Your task to perform on an android device: open app "PlayWell" (install if not already installed) Image 0: 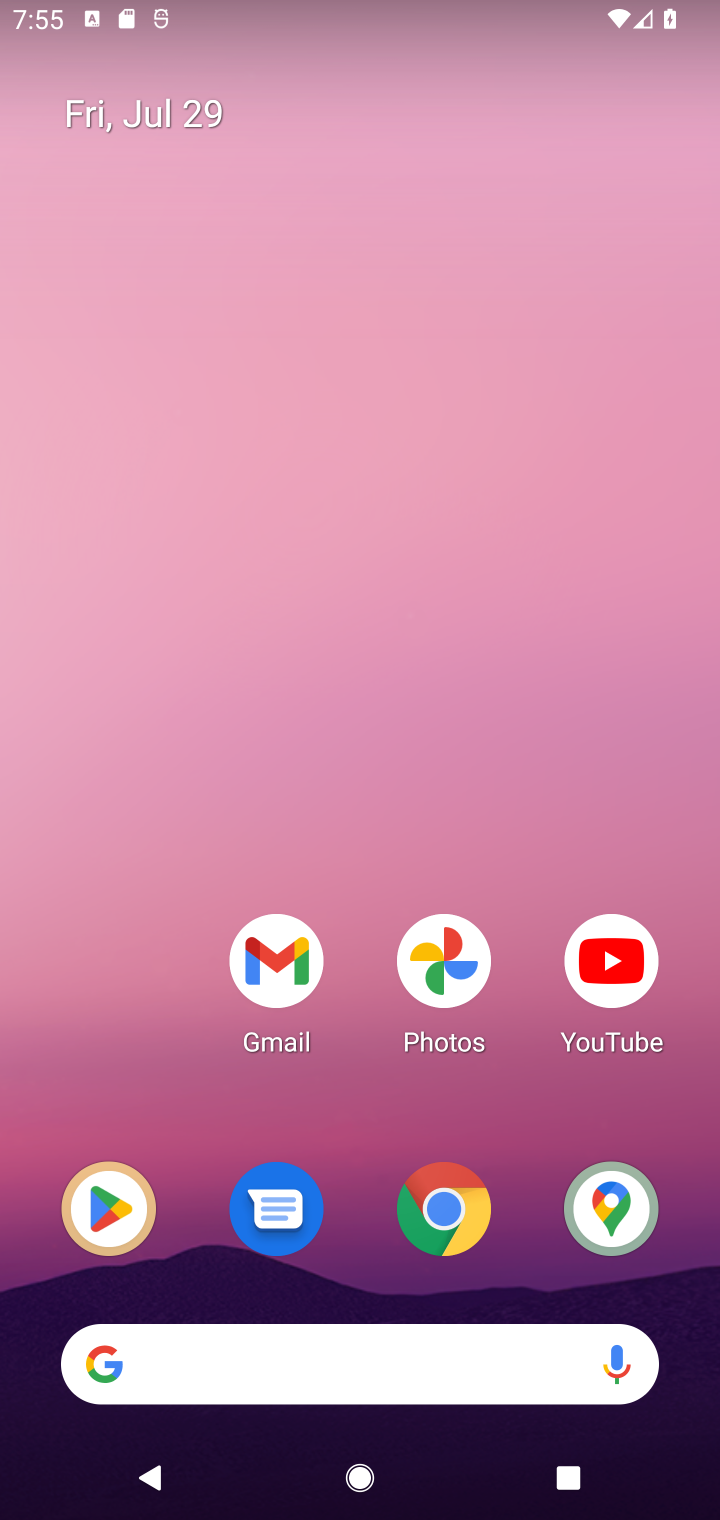
Step 0: click (125, 1210)
Your task to perform on an android device: open app "PlayWell" (install if not already installed) Image 1: 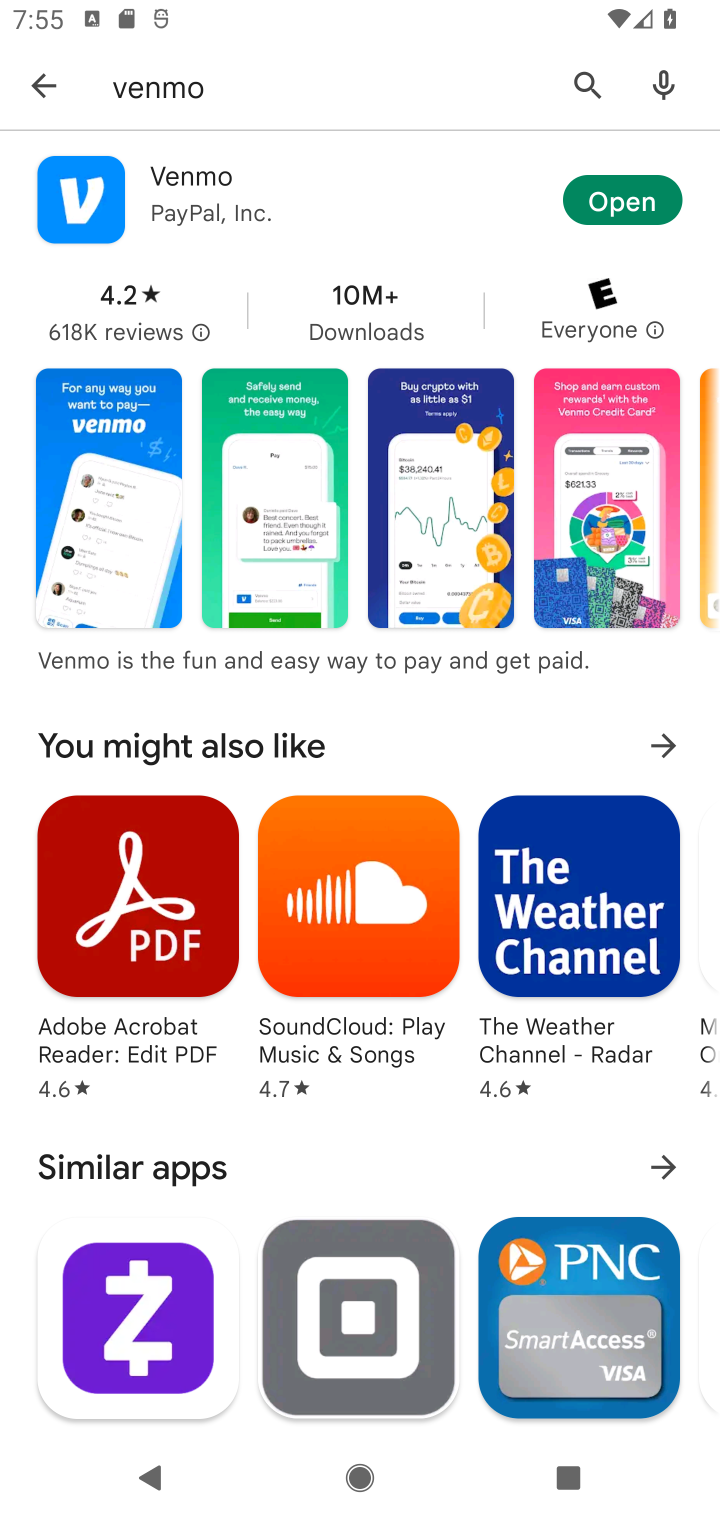
Step 1: click (593, 80)
Your task to perform on an android device: open app "PlayWell" (install if not already installed) Image 2: 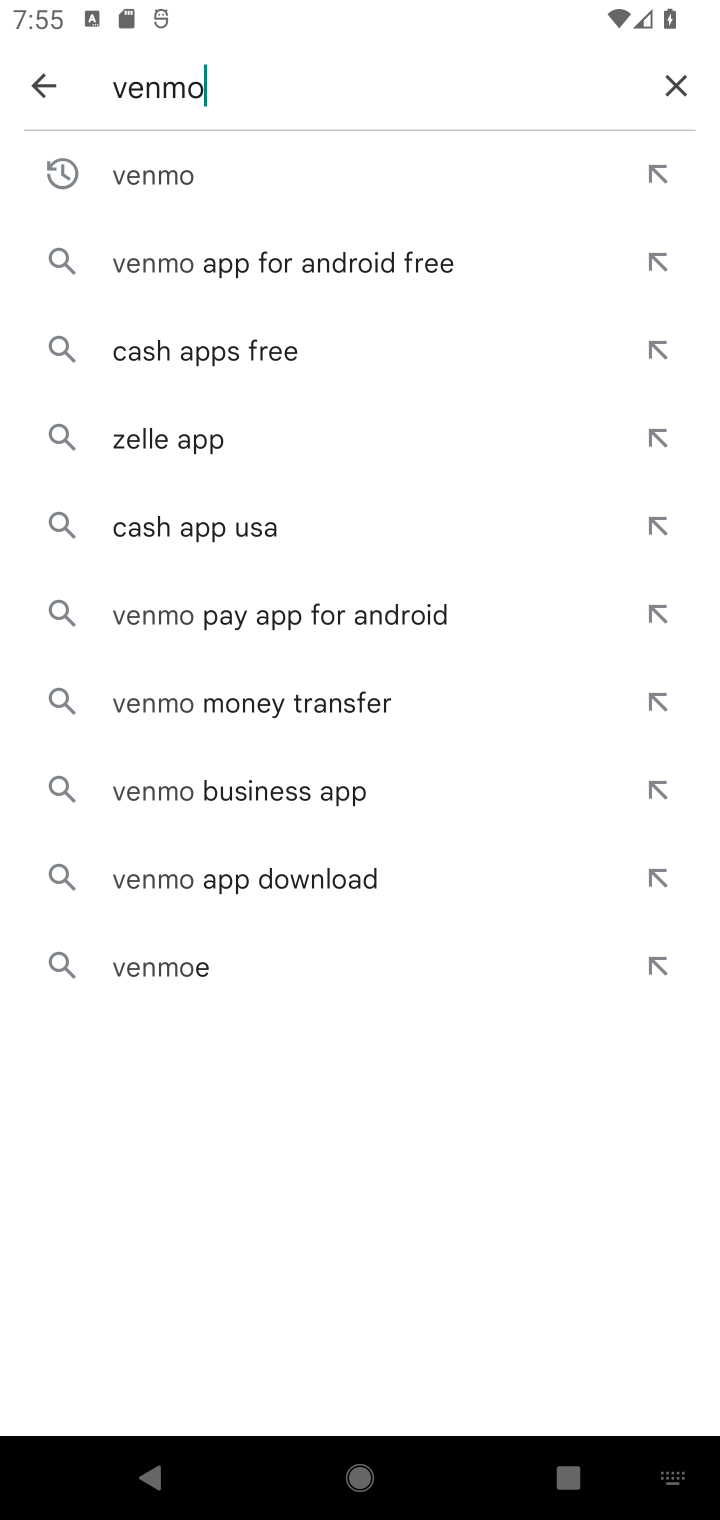
Step 2: click (659, 92)
Your task to perform on an android device: open app "PlayWell" (install if not already installed) Image 3: 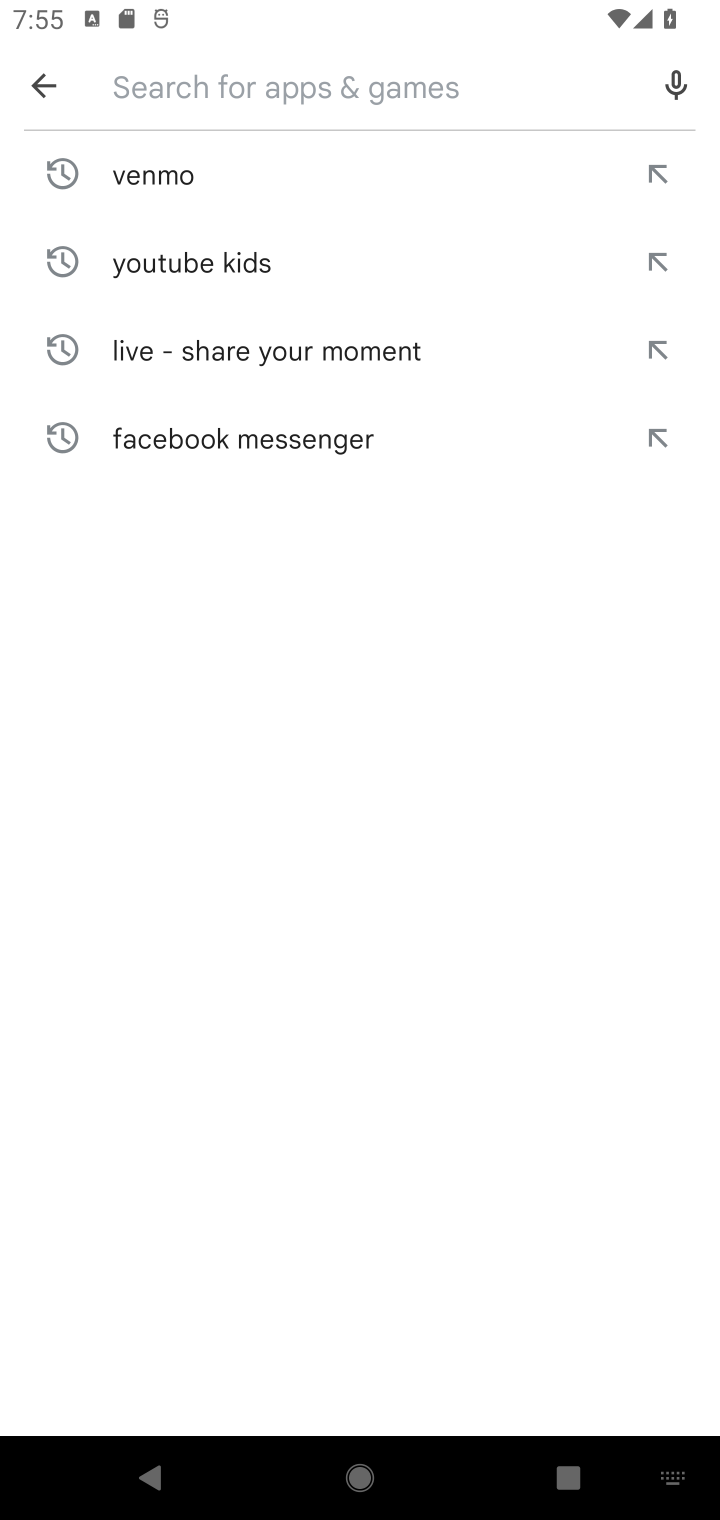
Step 3: type "PlayWell"
Your task to perform on an android device: open app "PlayWell" (install if not already installed) Image 4: 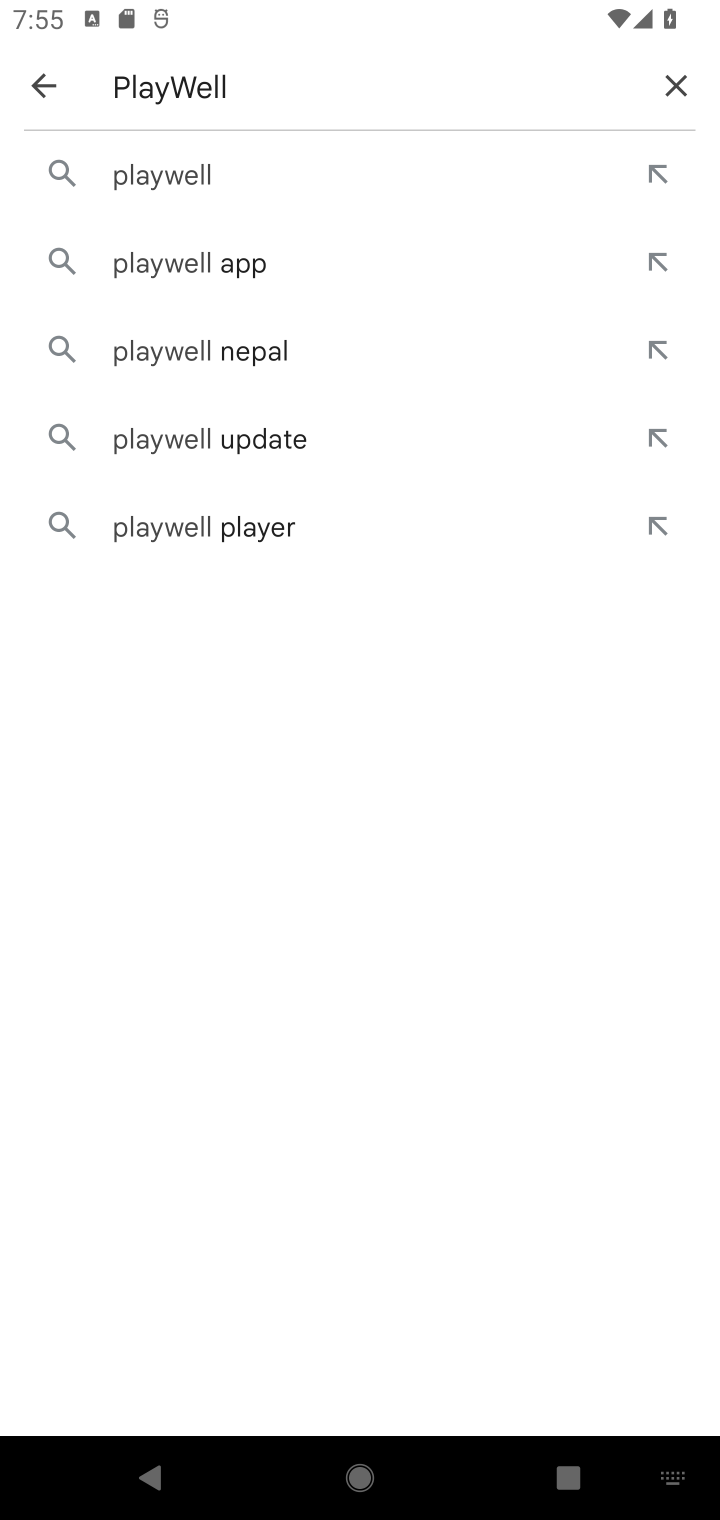
Step 4: click (160, 186)
Your task to perform on an android device: open app "PlayWell" (install if not already installed) Image 5: 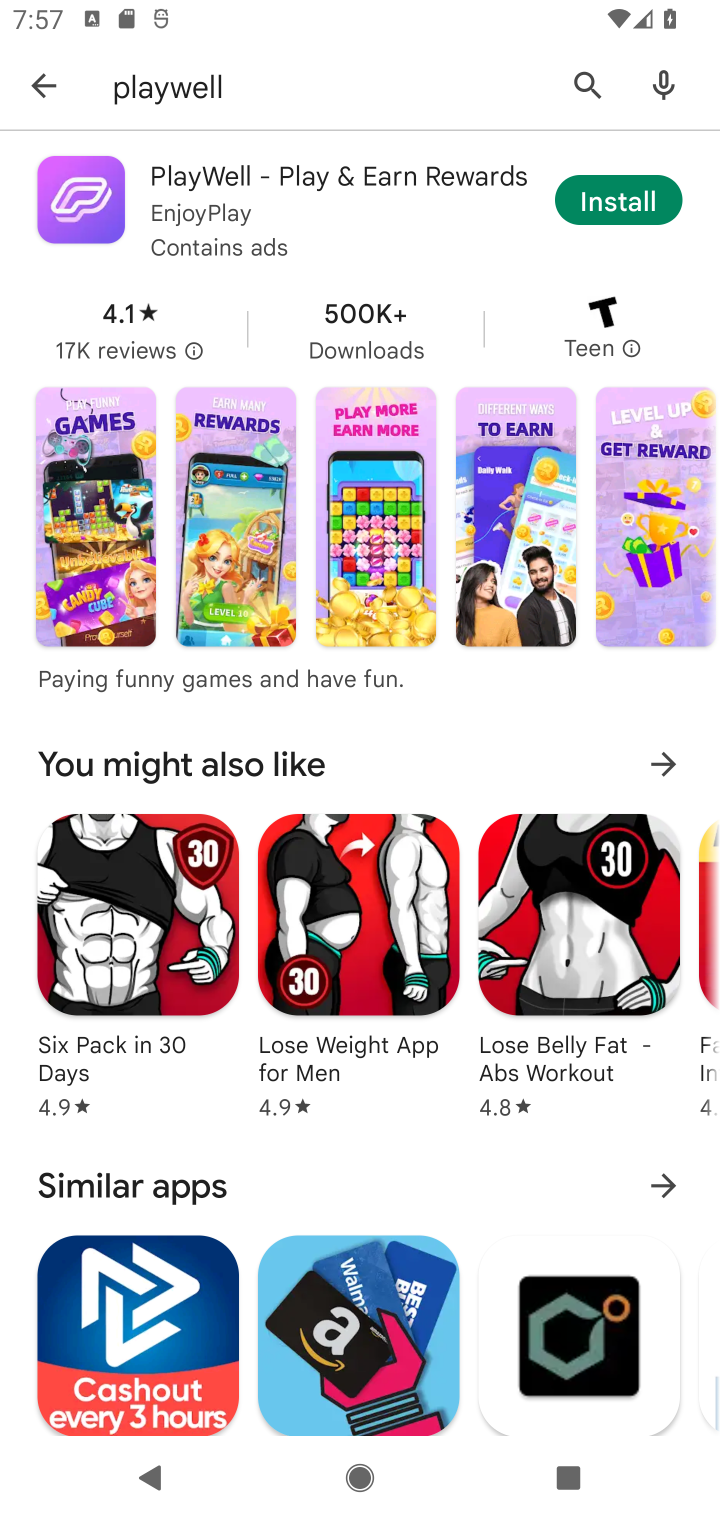
Step 5: click (619, 196)
Your task to perform on an android device: open app "PlayWell" (install if not already installed) Image 6: 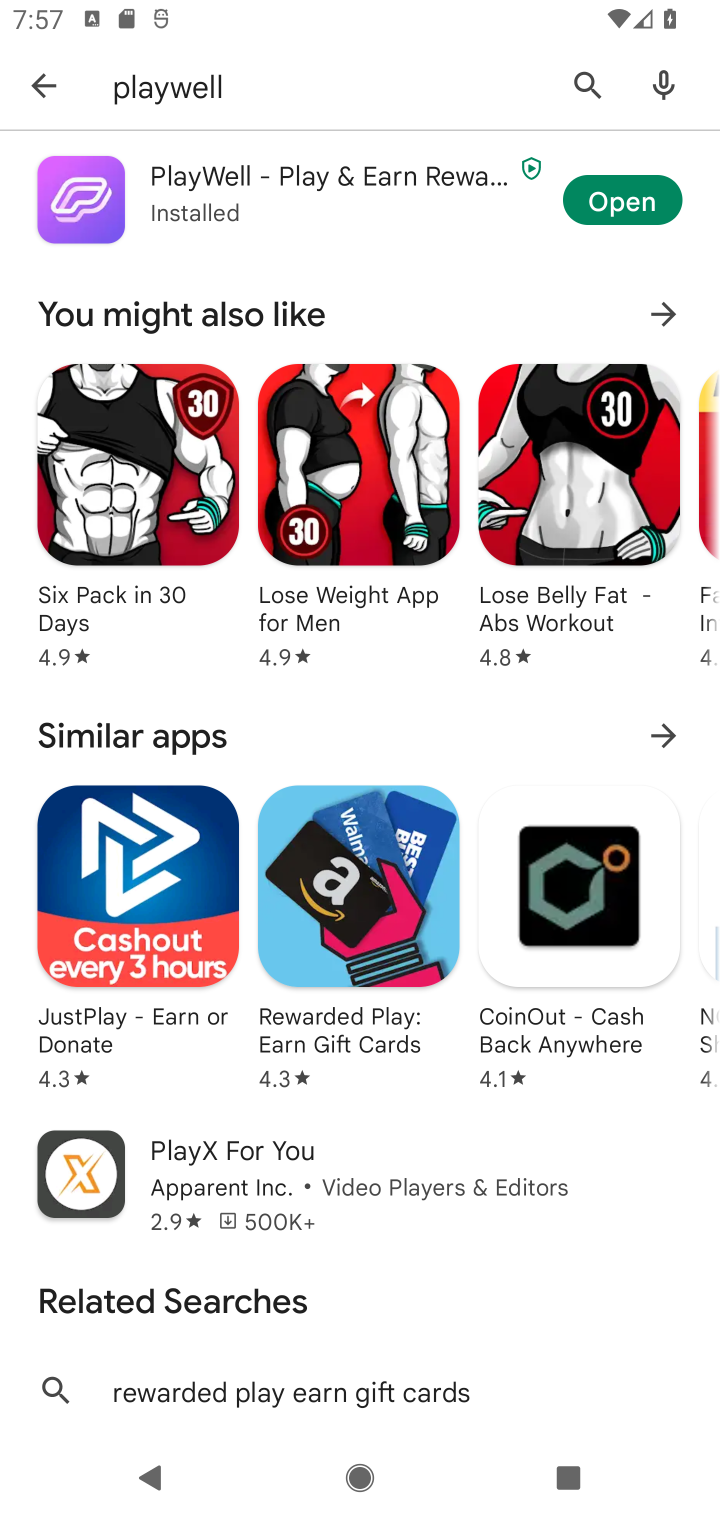
Step 6: click (619, 196)
Your task to perform on an android device: open app "PlayWell" (install if not already installed) Image 7: 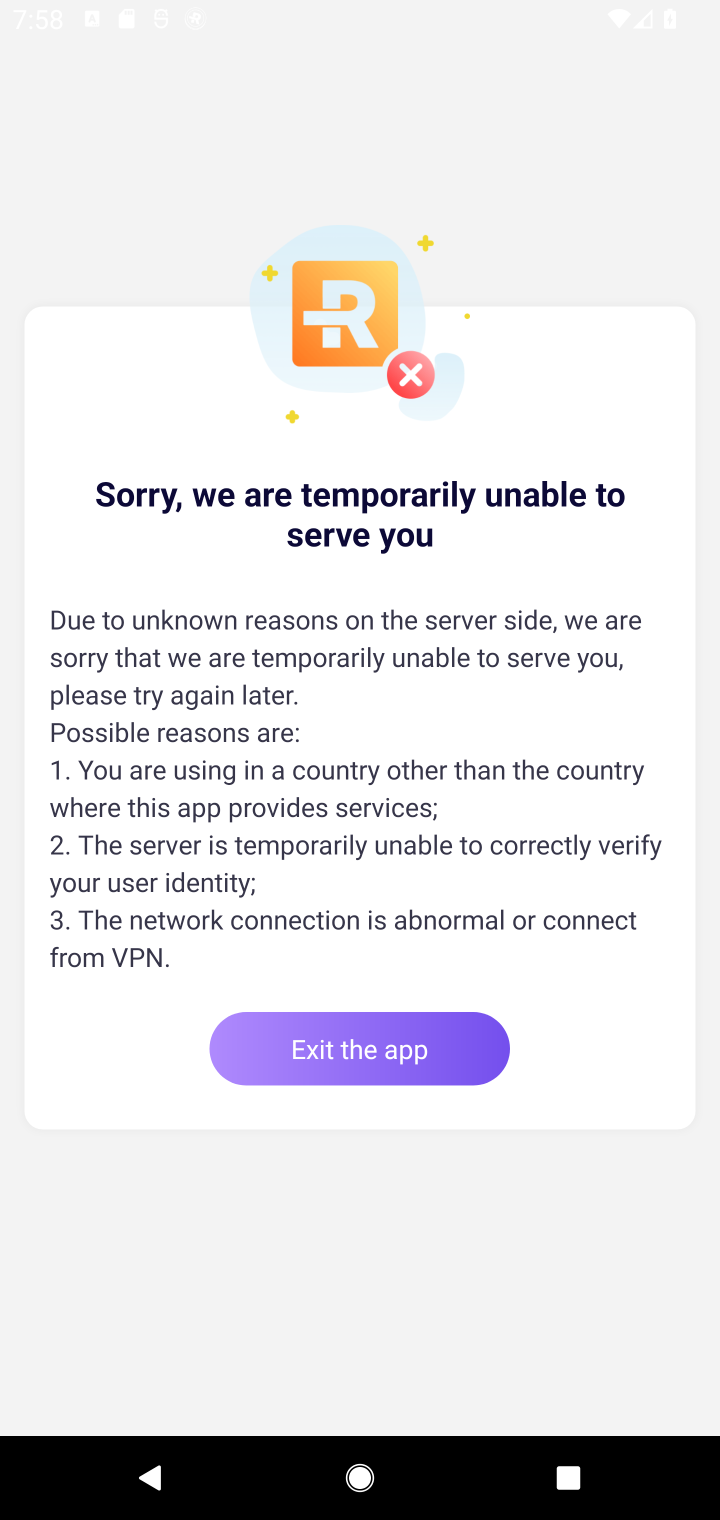
Step 7: task complete